Your task to perform on an android device: open app "ZOOM Cloud Meetings" (install if not already installed) Image 0: 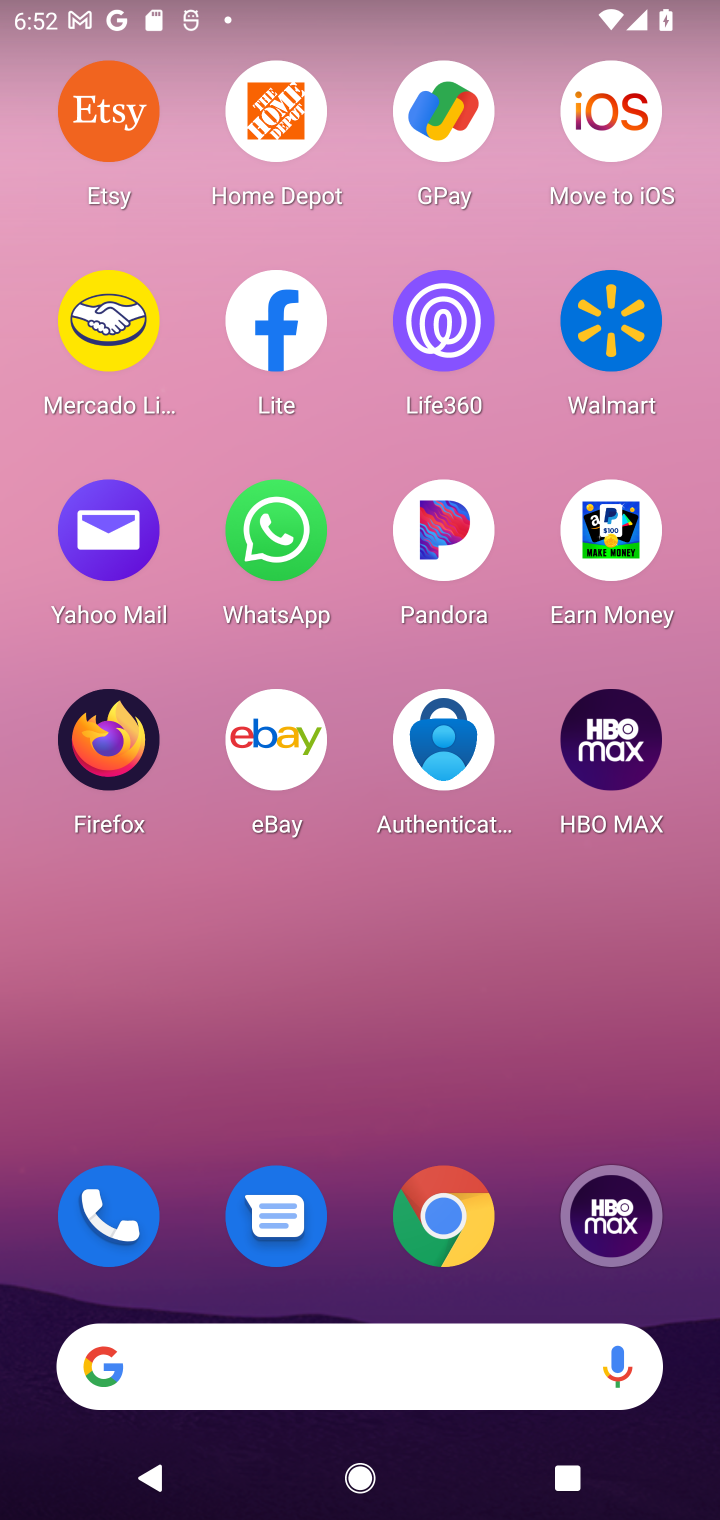
Step 0: drag from (531, 1261) to (514, 417)
Your task to perform on an android device: open app "ZOOM Cloud Meetings" (install if not already installed) Image 1: 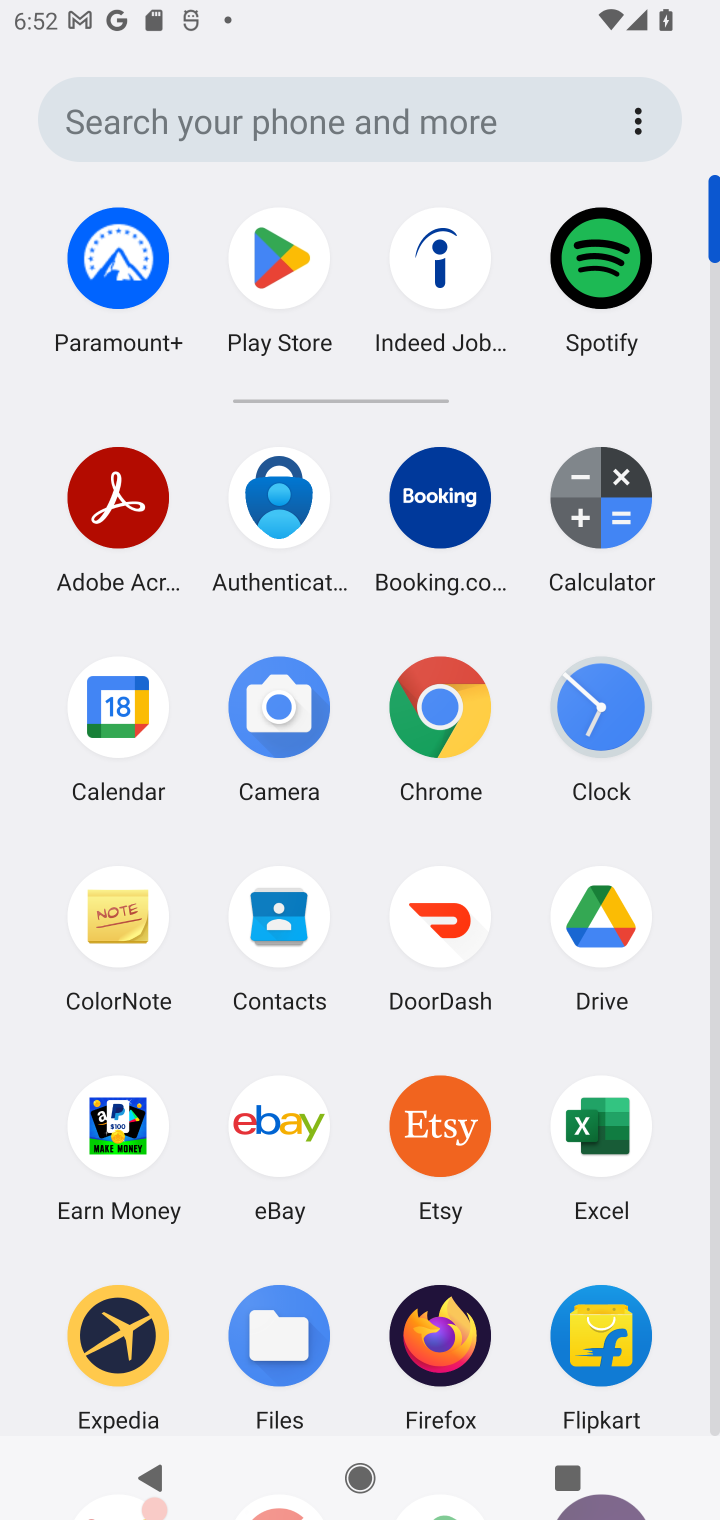
Step 1: drag from (519, 1300) to (492, 535)
Your task to perform on an android device: open app "ZOOM Cloud Meetings" (install if not already installed) Image 2: 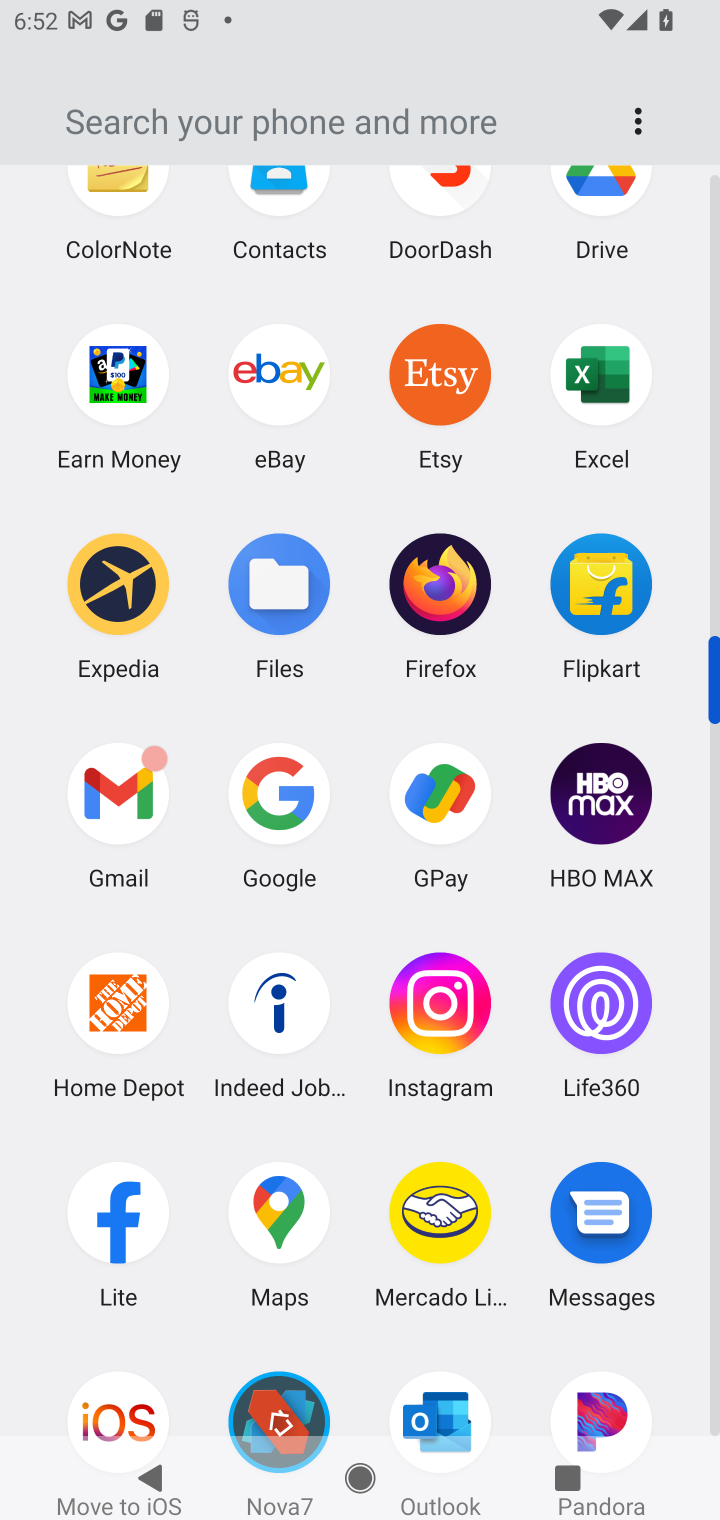
Step 2: drag from (533, 1319) to (472, 520)
Your task to perform on an android device: open app "ZOOM Cloud Meetings" (install if not already installed) Image 3: 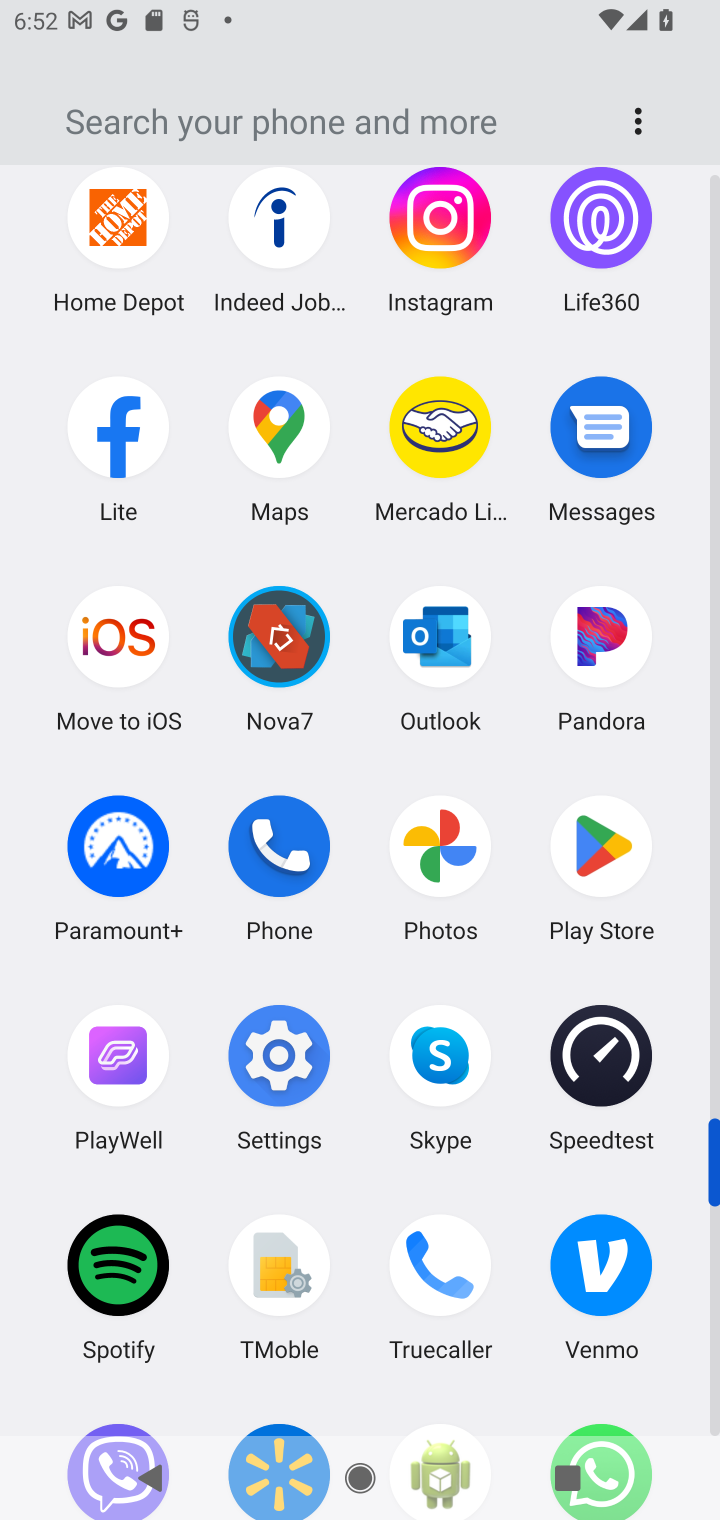
Step 3: click (602, 847)
Your task to perform on an android device: open app "ZOOM Cloud Meetings" (install if not already installed) Image 4: 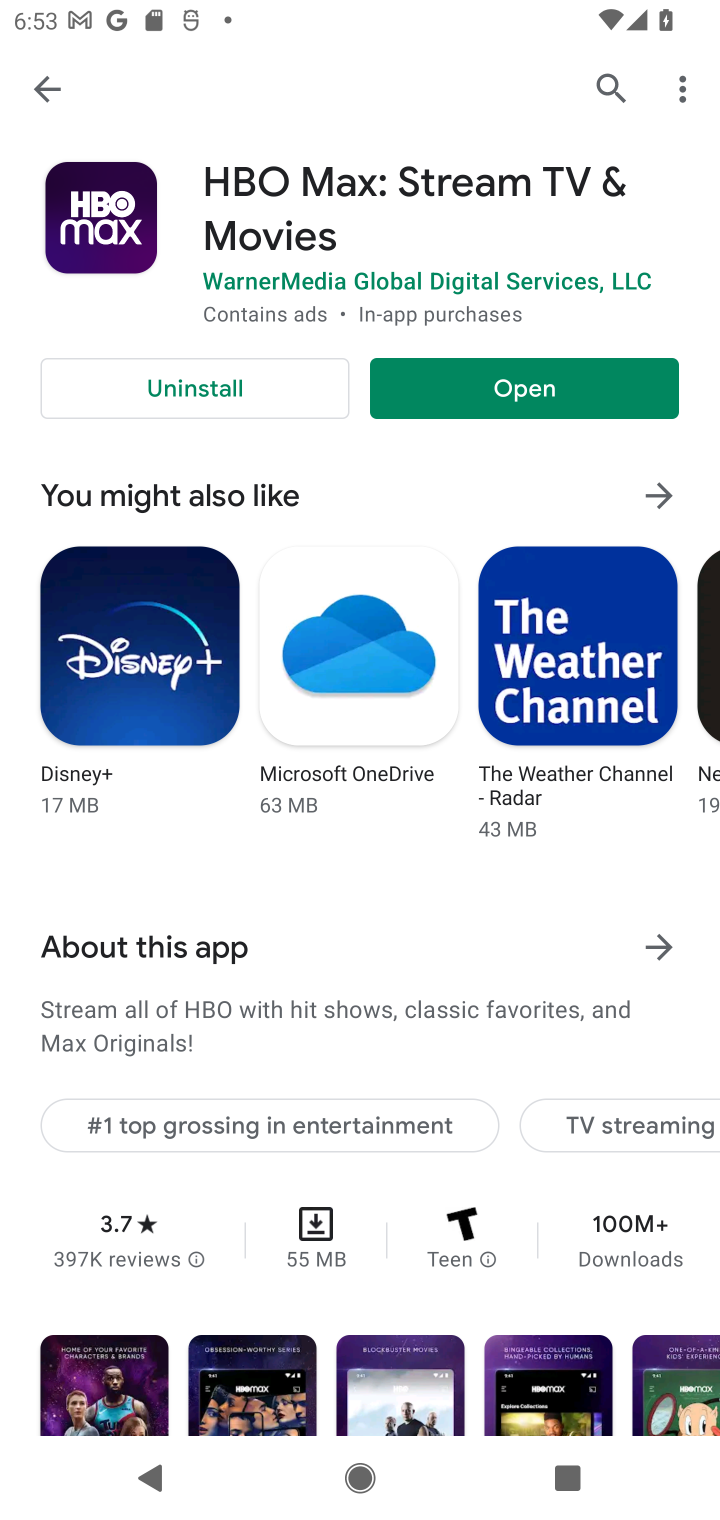
Step 4: click (601, 85)
Your task to perform on an android device: open app "ZOOM Cloud Meetings" (install if not already installed) Image 5: 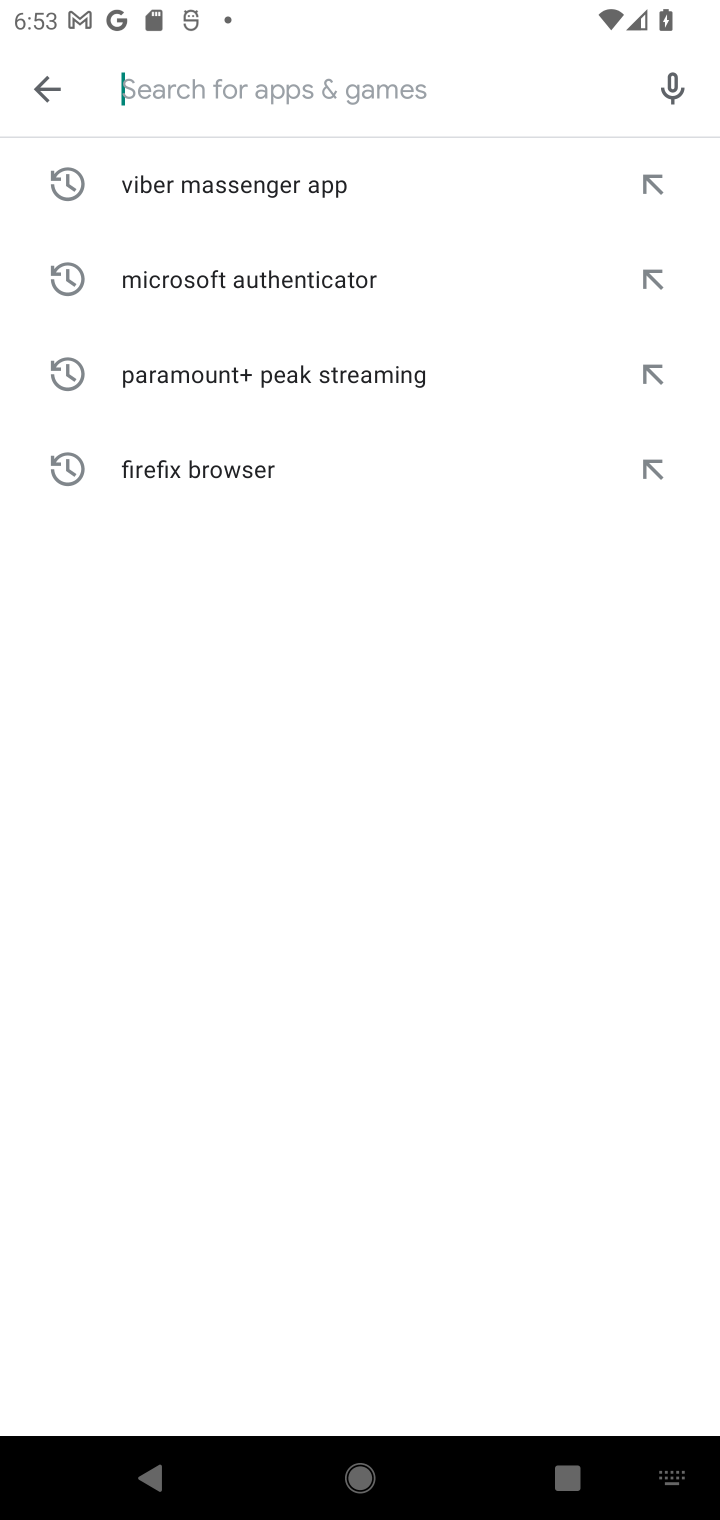
Step 5: type "Zoom cloud meetings"
Your task to perform on an android device: open app "ZOOM Cloud Meetings" (install if not already installed) Image 6: 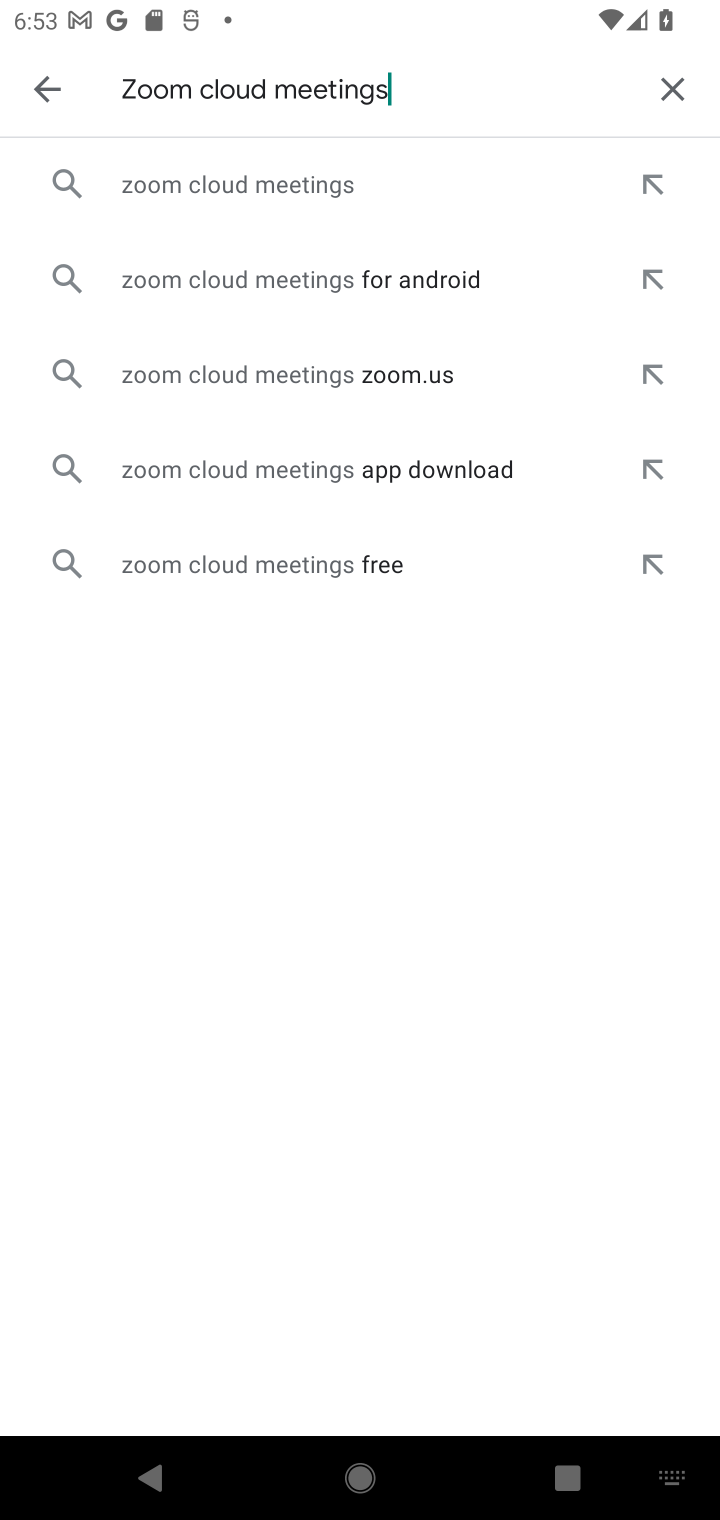
Step 6: click (222, 170)
Your task to perform on an android device: open app "ZOOM Cloud Meetings" (install if not already installed) Image 7: 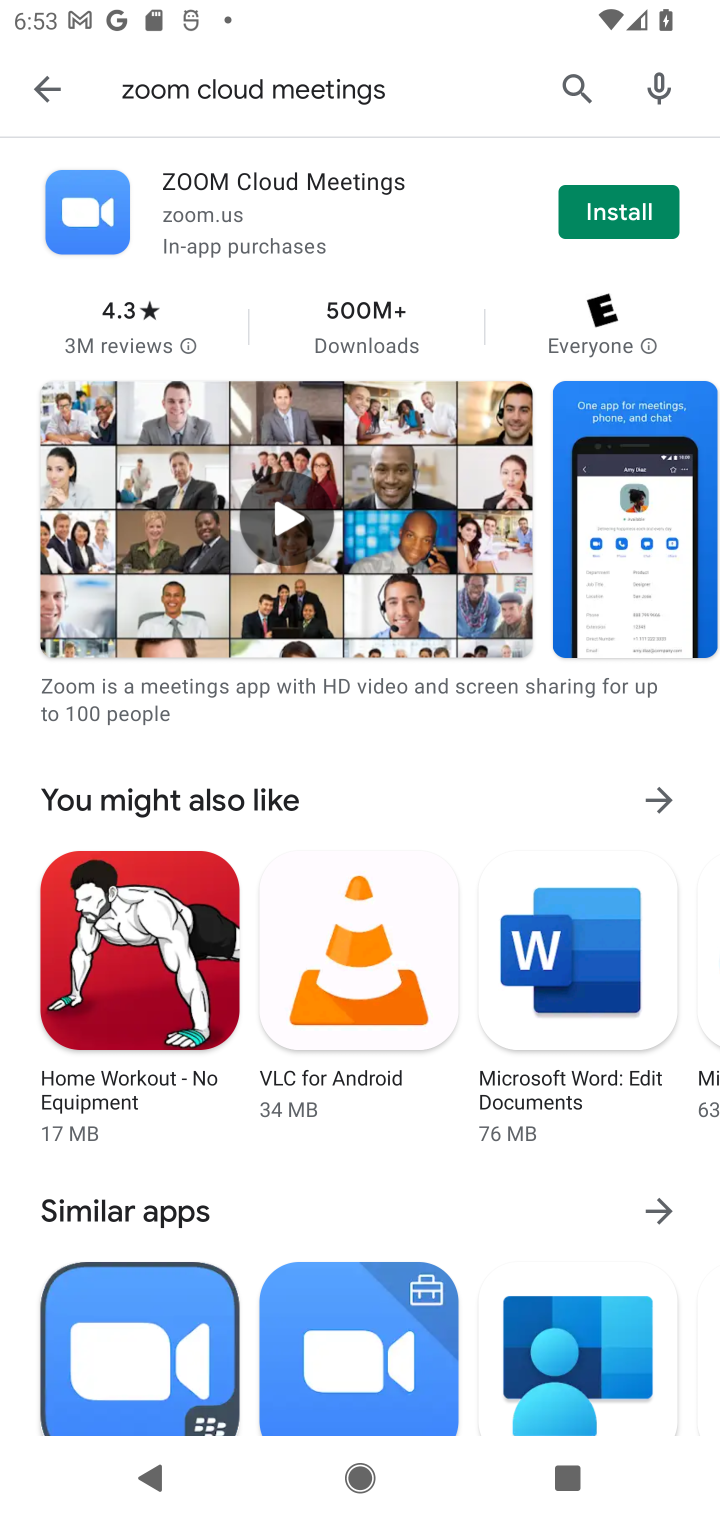
Step 7: click (615, 214)
Your task to perform on an android device: open app "ZOOM Cloud Meetings" (install if not already installed) Image 8: 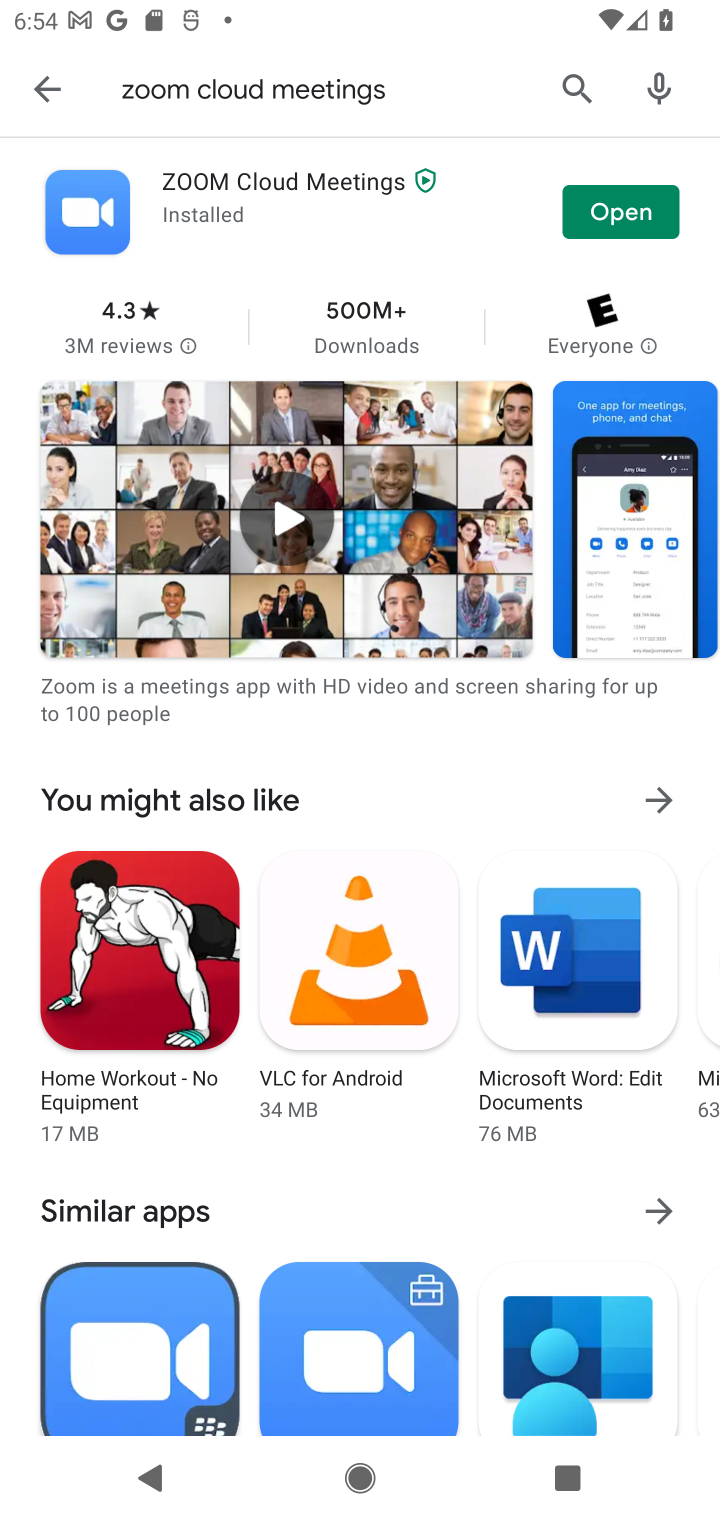
Step 8: click (619, 213)
Your task to perform on an android device: open app "ZOOM Cloud Meetings" (install if not already installed) Image 9: 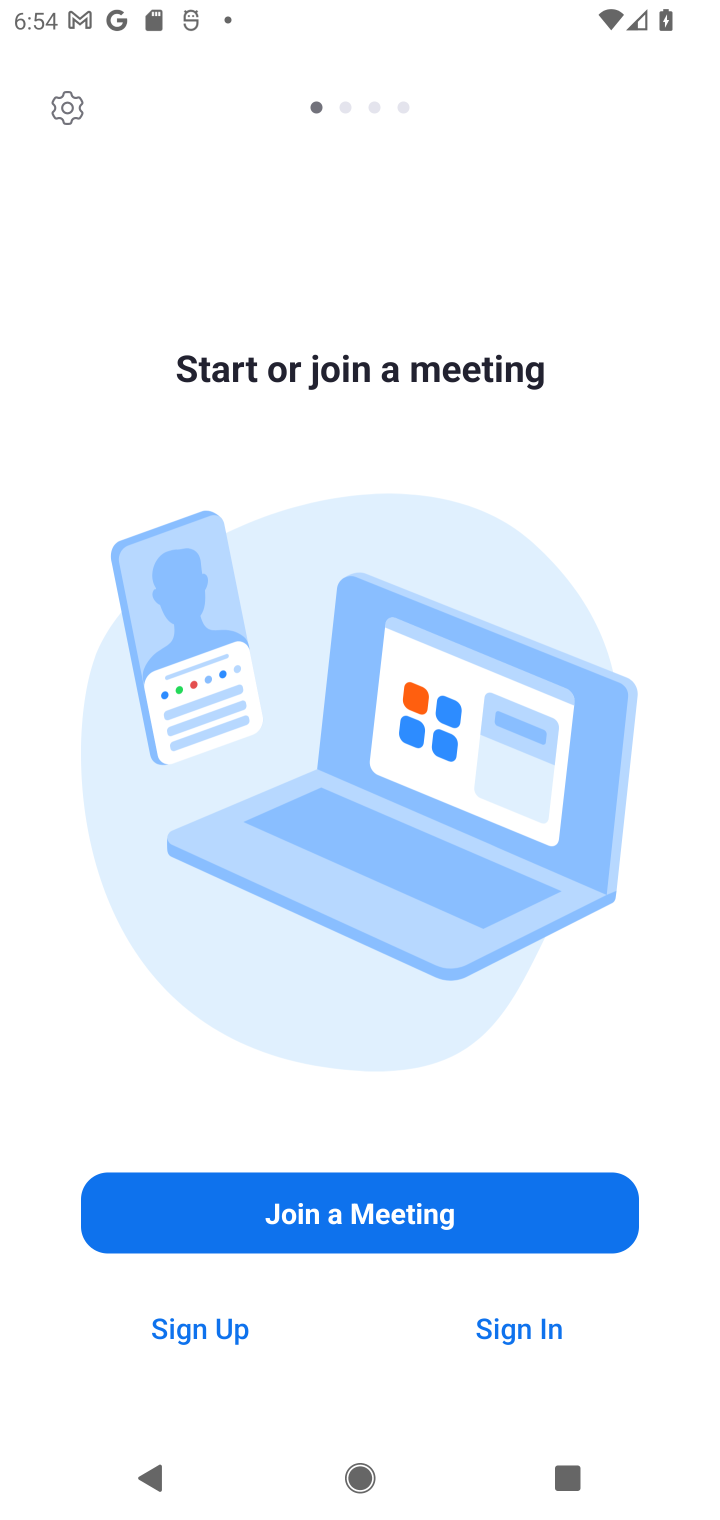
Step 9: task complete